Your task to perform on an android device: open app "Grab" (install if not already installed) Image 0: 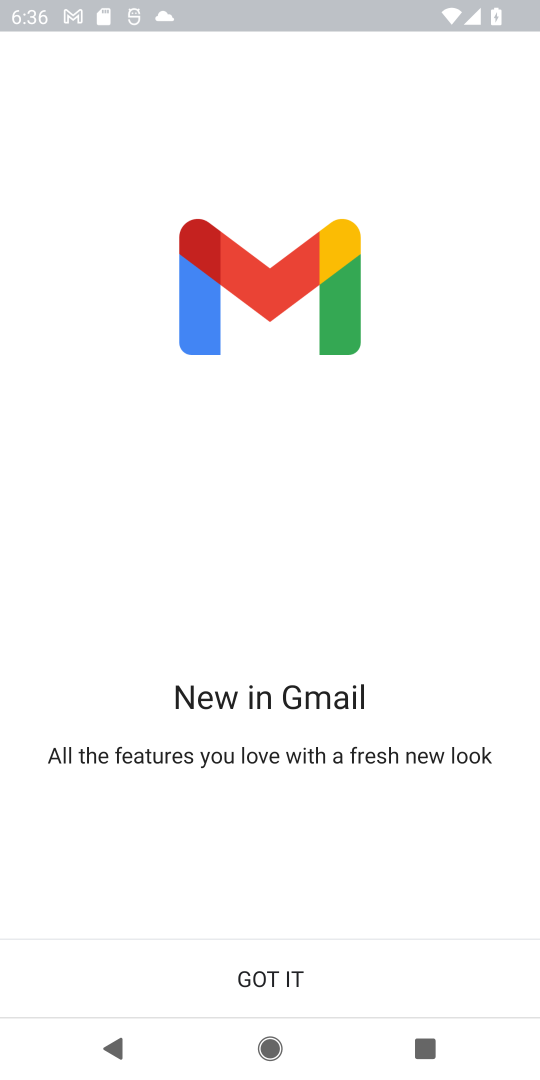
Step 0: press home button
Your task to perform on an android device: open app "Grab" (install if not already installed) Image 1: 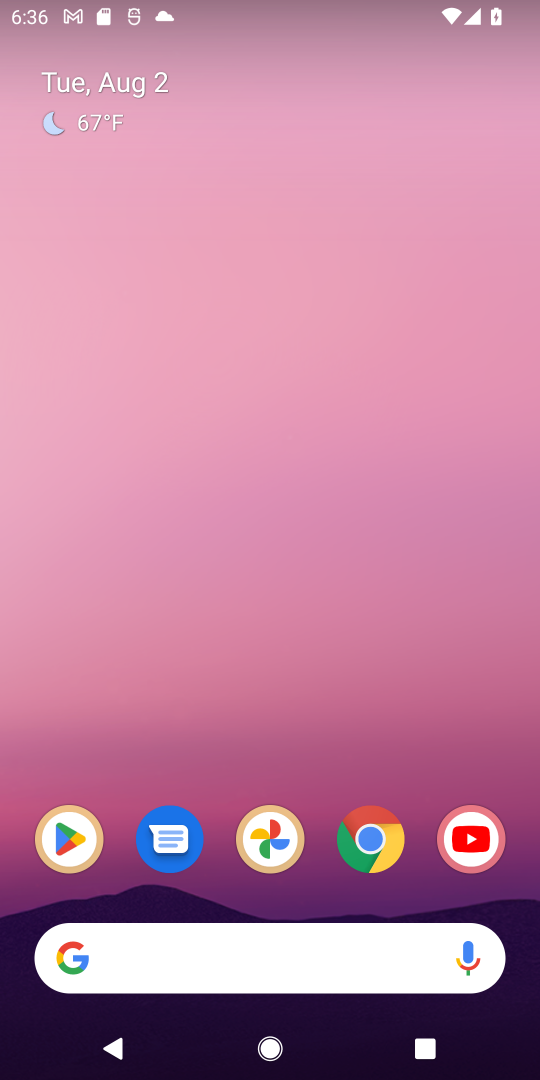
Step 1: click (74, 833)
Your task to perform on an android device: open app "Grab" (install if not already installed) Image 2: 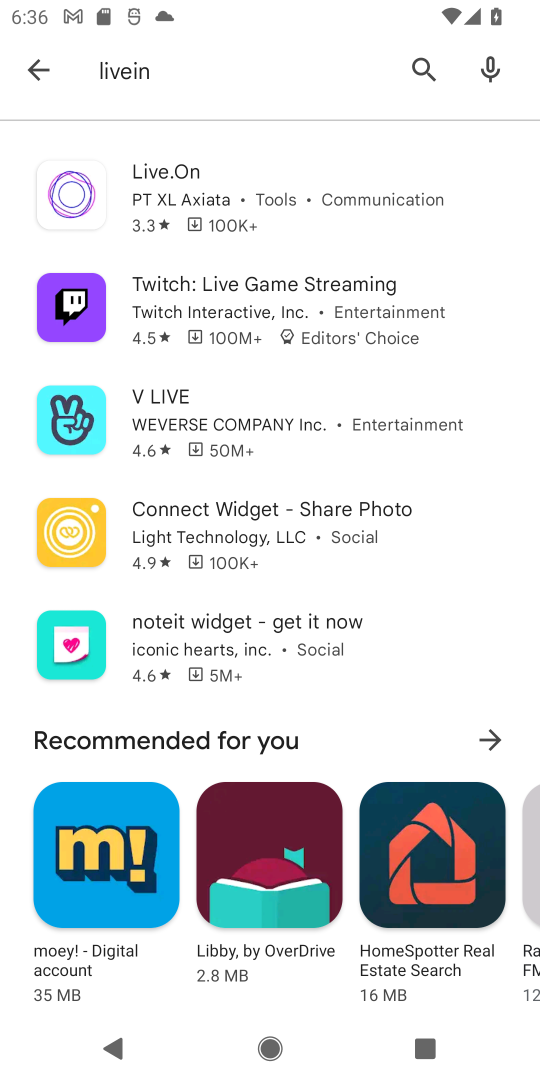
Step 2: click (195, 61)
Your task to perform on an android device: open app "Grab" (install if not already installed) Image 3: 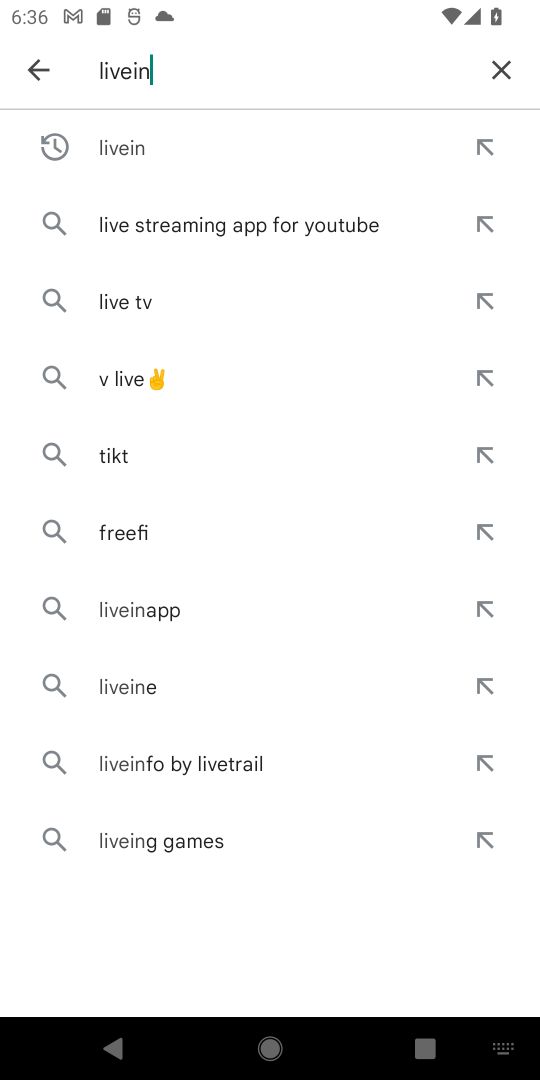
Step 3: click (499, 71)
Your task to perform on an android device: open app "Grab" (install if not already installed) Image 4: 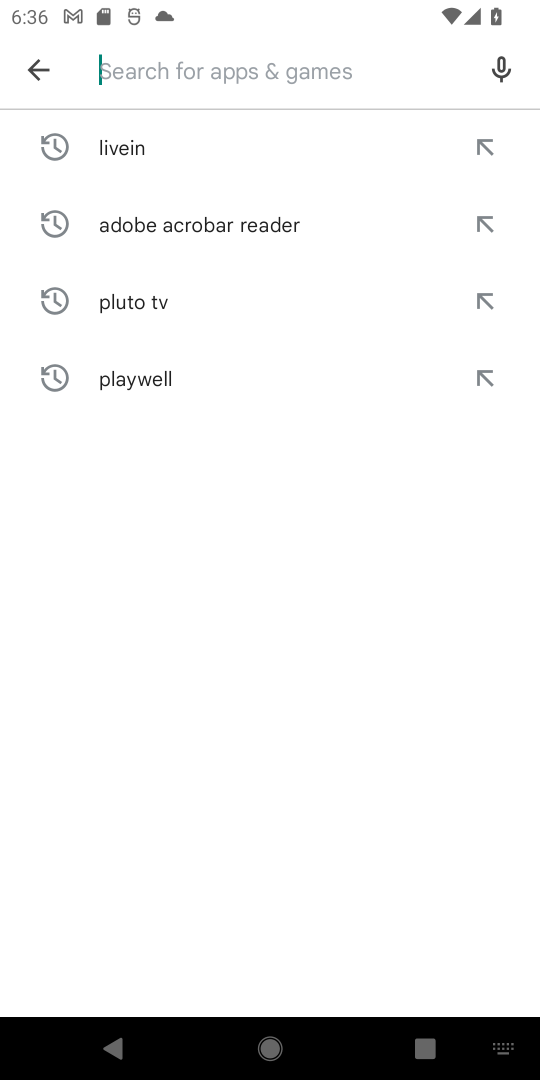
Step 4: type "grab"
Your task to perform on an android device: open app "Grab" (install if not already installed) Image 5: 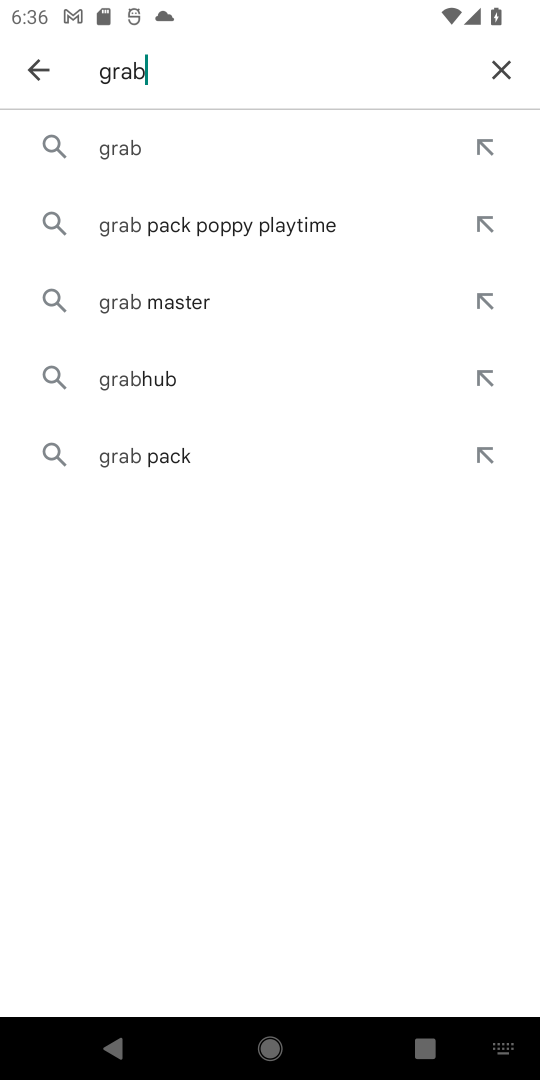
Step 5: click (171, 150)
Your task to perform on an android device: open app "Grab" (install if not already installed) Image 6: 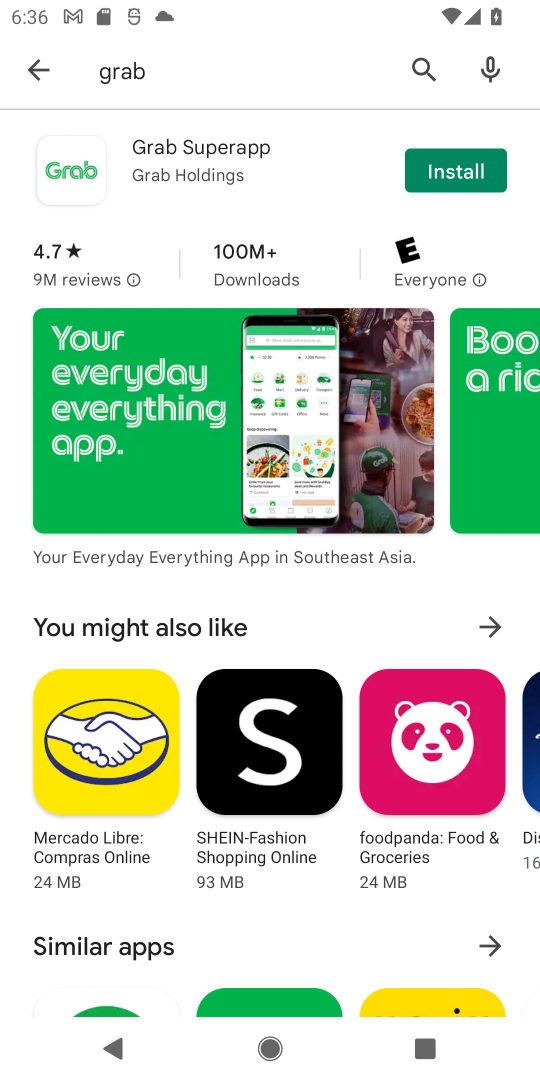
Step 6: click (464, 177)
Your task to perform on an android device: open app "Grab" (install if not already installed) Image 7: 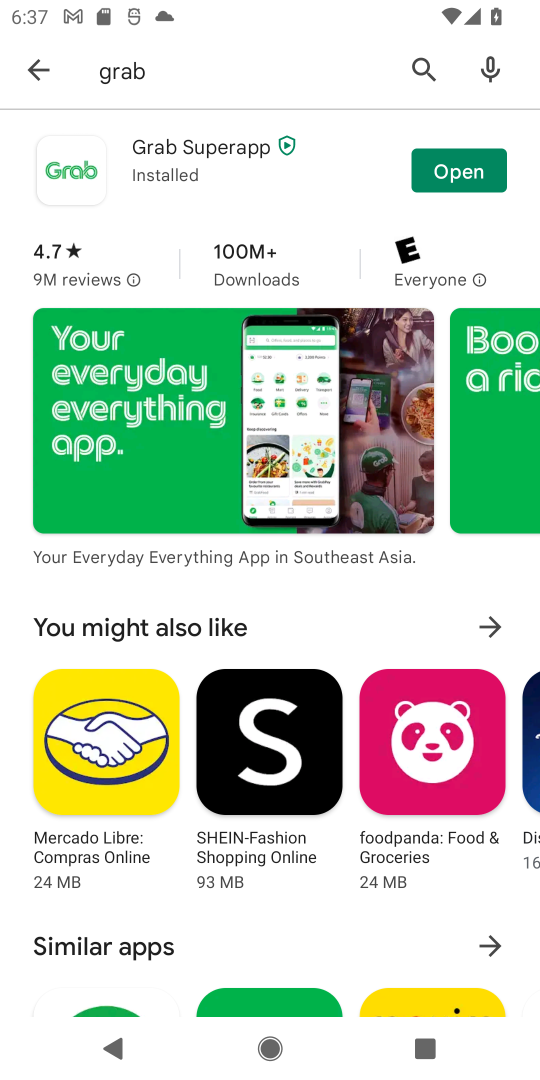
Step 7: click (455, 165)
Your task to perform on an android device: open app "Grab" (install if not already installed) Image 8: 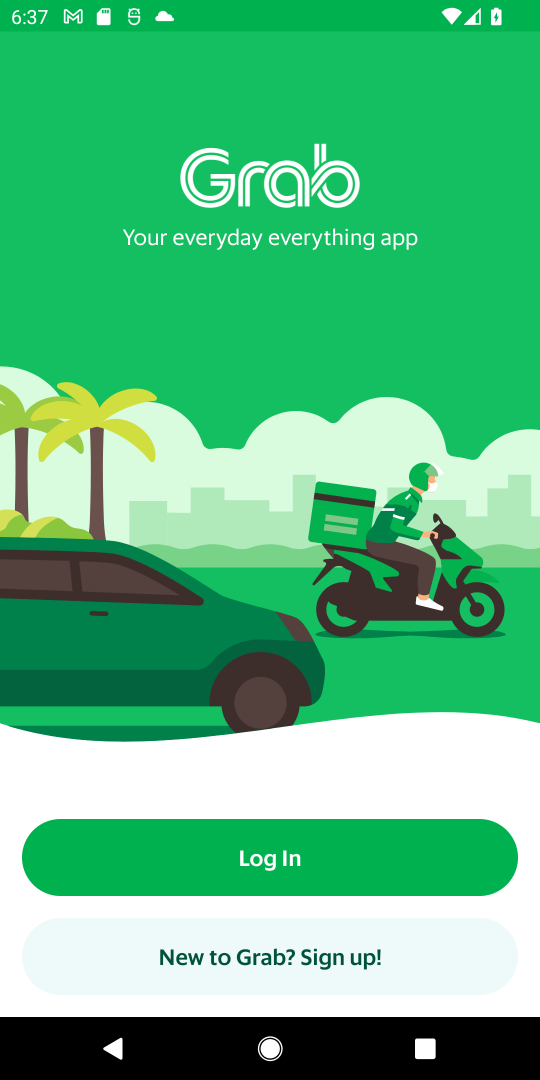
Step 8: task complete